Your task to perform on an android device: clear history in the chrome app Image 0: 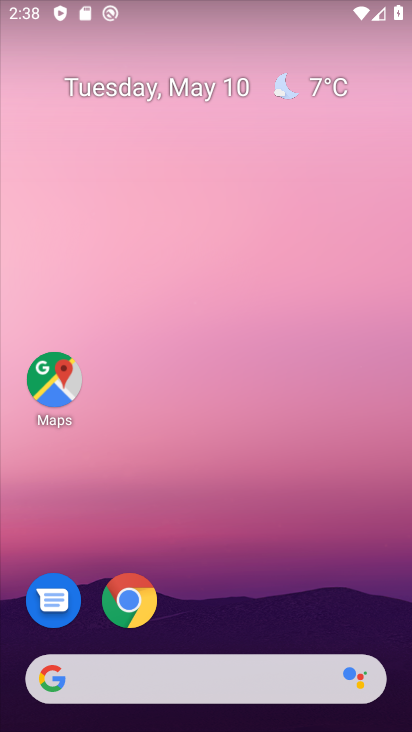
Step 0: click (124, 629)
Your task to perform on an android device: clear history in the chrome app Image 1: 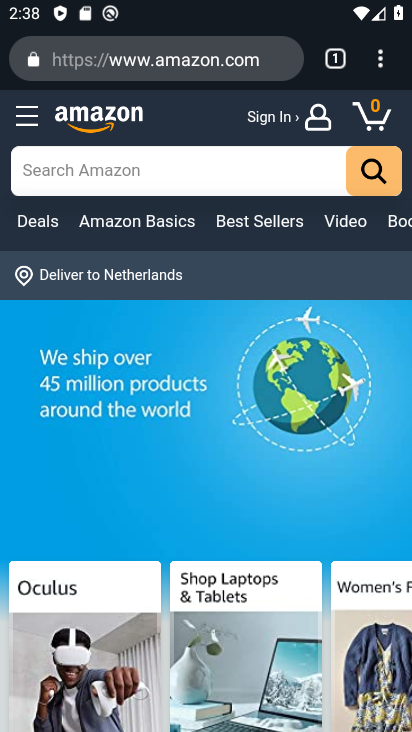
Step 1: click (381, 64)
Your task to perform on an android device: clear history in the chrome app Image 2: 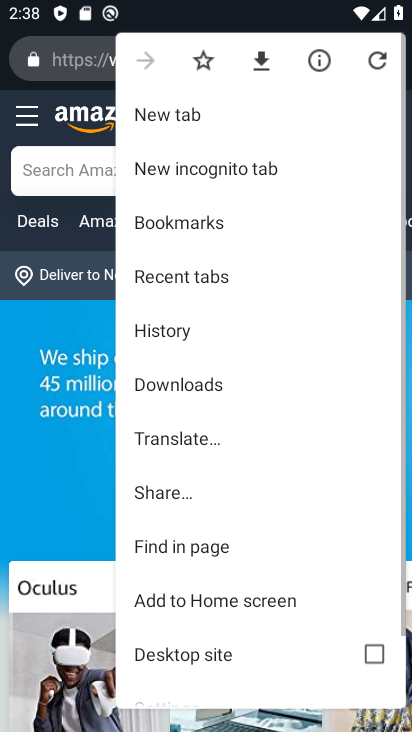
Step 2: drag from (234, 581) to (233, 193)
Your task to perform on an android device: clear history in the chrome app Image 3: 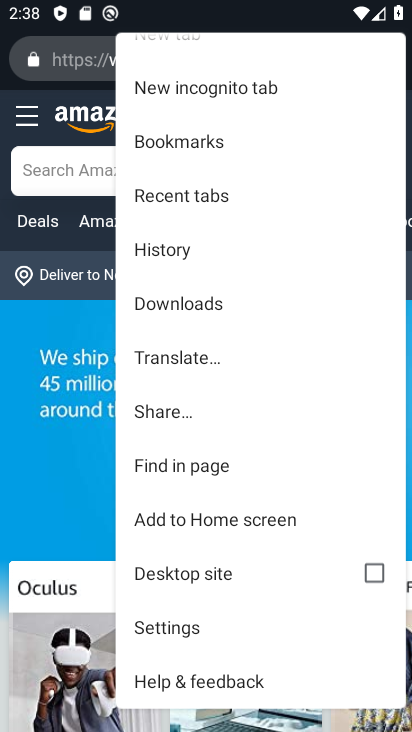
Step 3: click (179, 629)
Your task to perform on an android device: clear history in the chrome app Image 4: 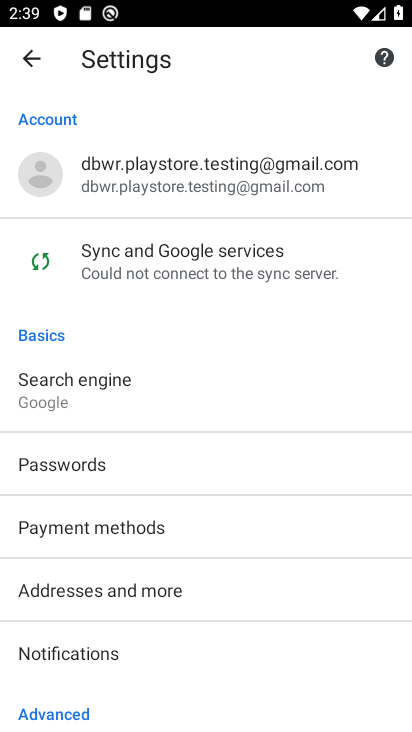
Step 4: drag from (165, 624) to (162, 46)
Your task to perform on an android device: clear history in the chrome app Image 5: 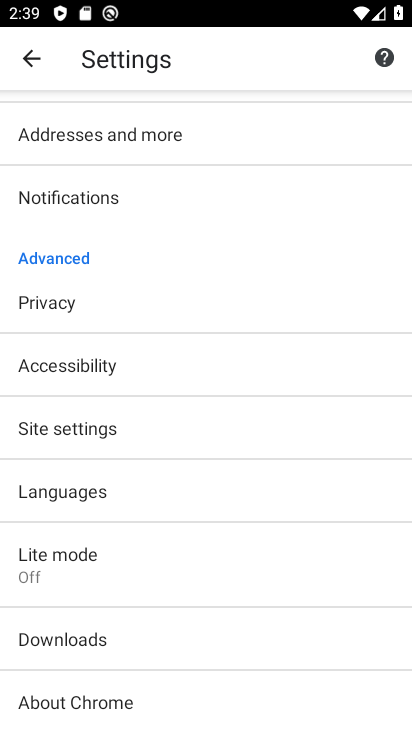
Step 5: click (97, 298)
Your task to perform on an android device: clear history in the chrome app Image 6: 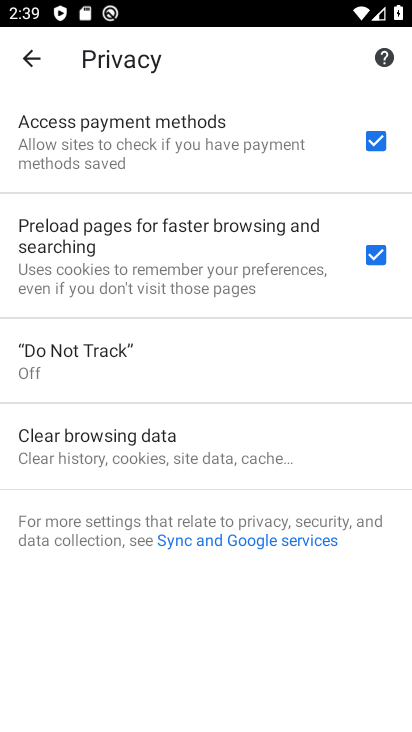
Step 6: click (154, 441)
Your task to perform on an android device: clear history in the chrome app Image 7: 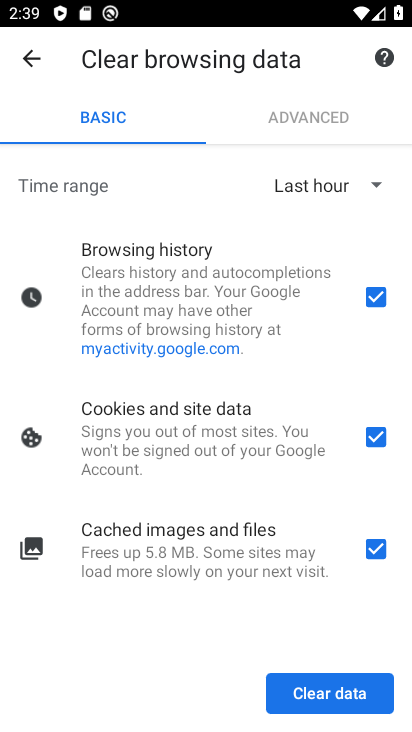
Step 7: click (371, 696)
Your task to perform on an android device: clear history in the chrome app Image 8: 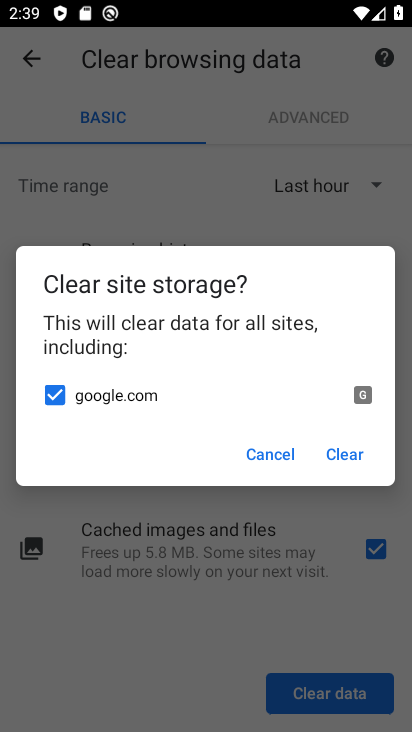
Step 8: click (348, 453)
Your task to perform on an android device: clear history in the chrome app Image 9: 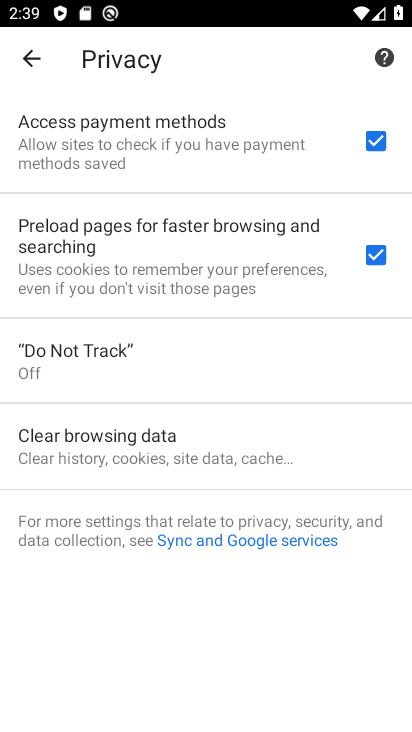
Step 9: task complete